Your task to perform on an android device: create a new album in the google photos Image 0: 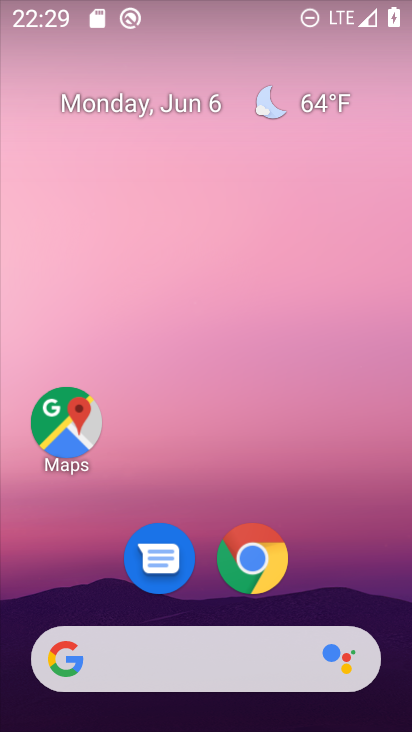
Step 0: drag from (246, 726) to (251, 177)
Your task to perform on an android device: create a new album in the google photos Image 1: 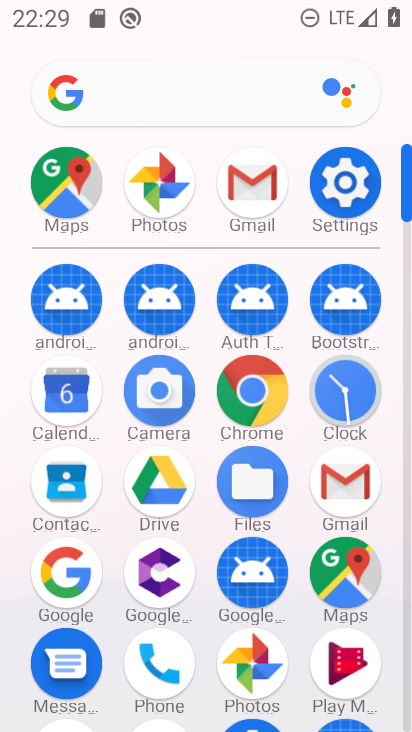
Step 1: click (250, 642)
Your task to perform on an android device: create a new album in the google photos Image 2: 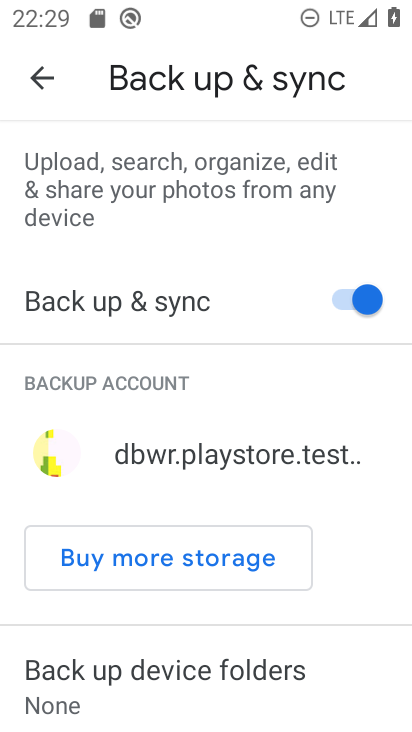
Step 2: click (41, 76)
Your task to perform on an android device: create a new album in the google photos Image 3: 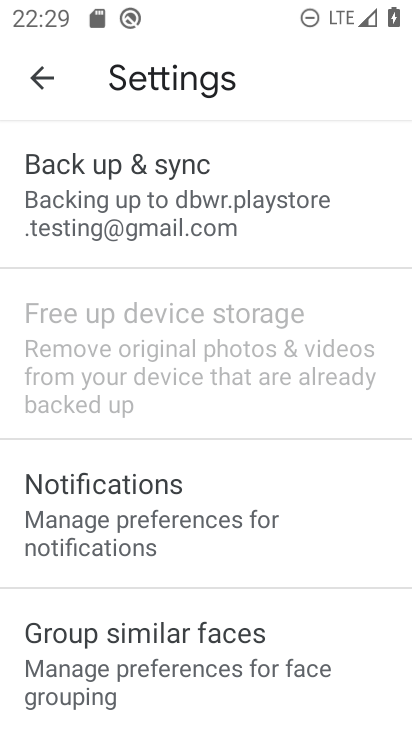
Step 3: click (38, 73)
Your task to perform on an android device: create a new album in the google photos Image 4: 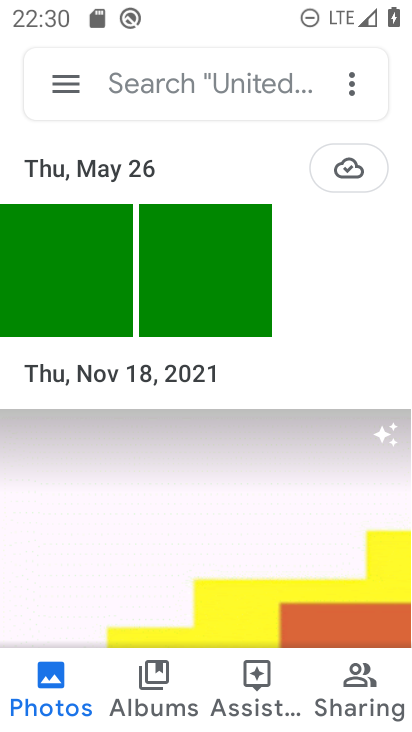
Step 4: click (353, 93)
Your task to perform on an android device: create a new album in the google photos Image 5: 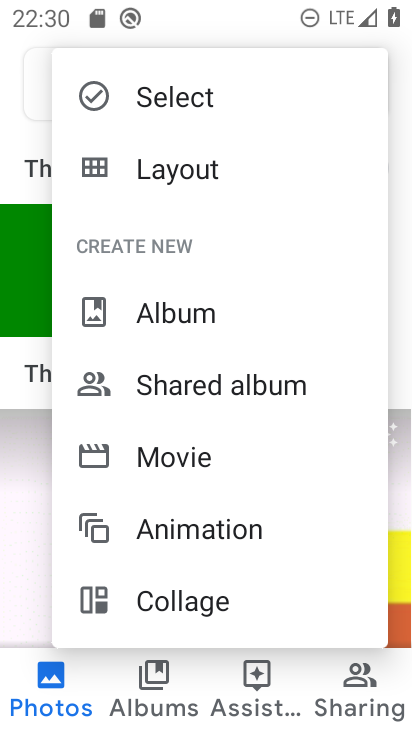
Step 5: click (167, 311)
Your task to perform on an android device: create a new album in the google photos Image 6: 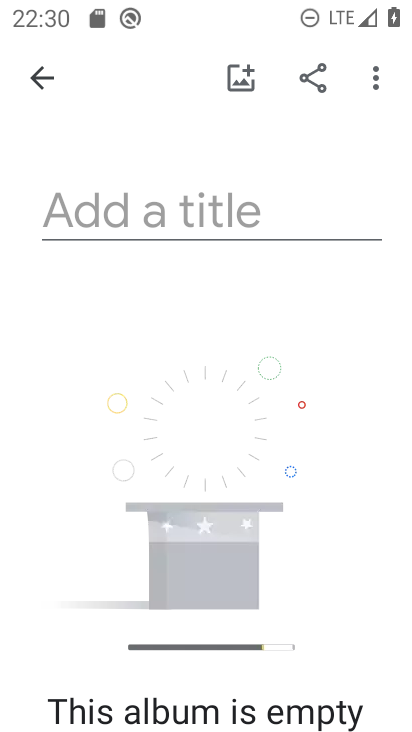
Step 6: click (250, 213)
Your task to perform on an android device: create a new album in the google photos Image 7: 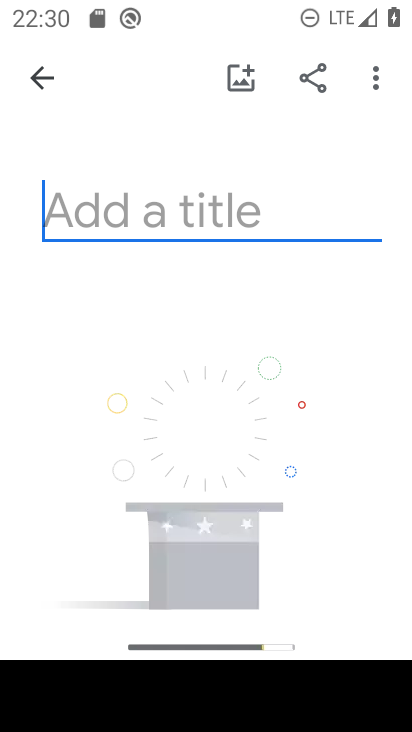
Step 7: type "bnbnbnb"
Your task to perform on an android device: create a new album in the google photos Image 8: 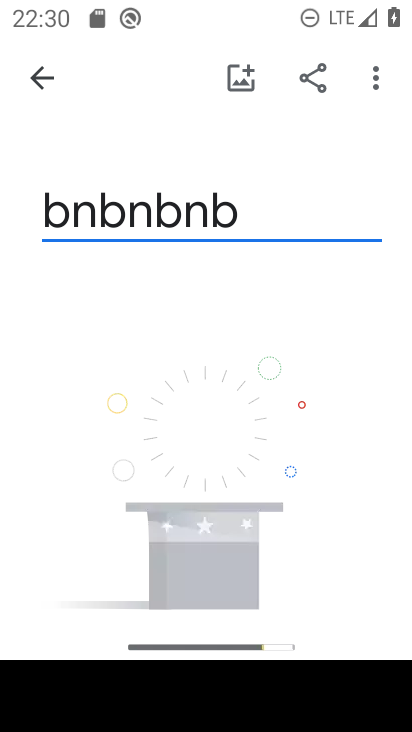
Step 8: click (219, 329)
Your task to perform on an android device: create a new album in the google photos Image 9: 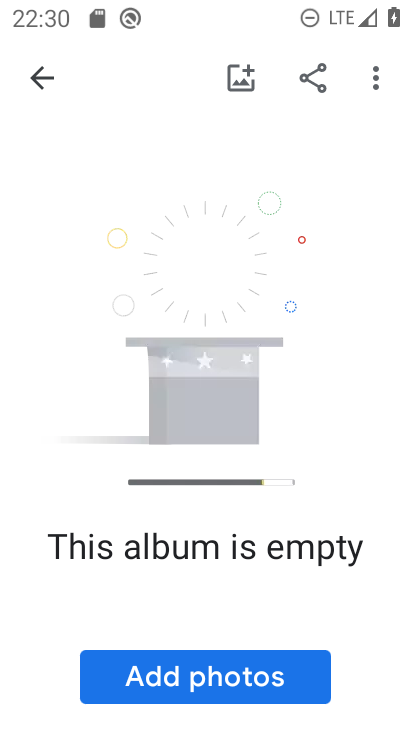
Step 9: click (181, 673)
Your task to perform on an android device: create a new album in the google photos Image 10: 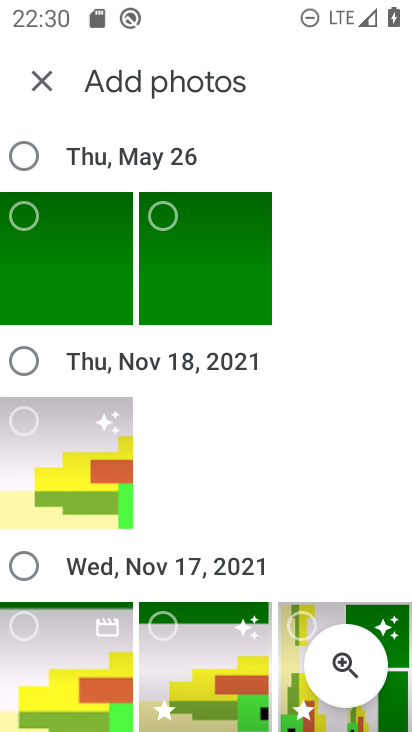
Step 10: click (23, 617)
Your task to perform on an android device: create a new album in the google photos Image 11: 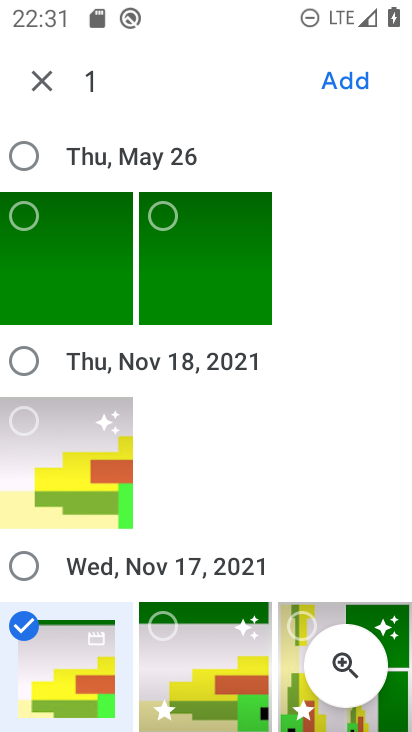
Step 11: click (342, 80)
Your task to perform on an android device: create a new album in the google photos Image 12: 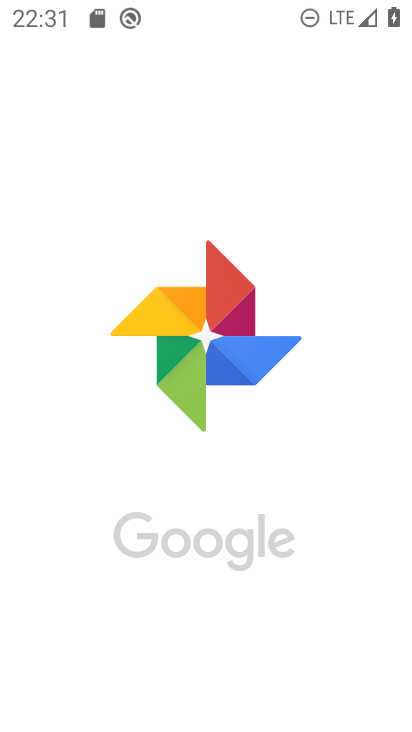
Step 12: task complete